Your task to perform on an android device: Search for Italian restaurants on Maps Image 0: 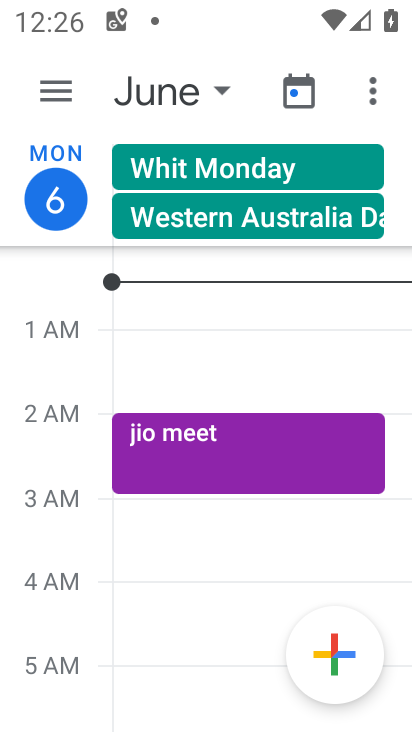
Step 0: press home button
Your task to perform on an android device: Search for Italian restaurants on Maps Image 1: 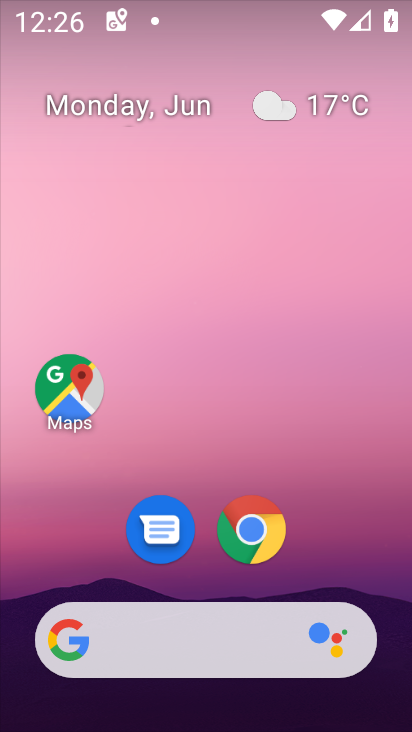
Step 1: drag from (370, 498) to (372, 0)
Your task to perform on an android device: Search for Italian restaurants on Maps Image 2: 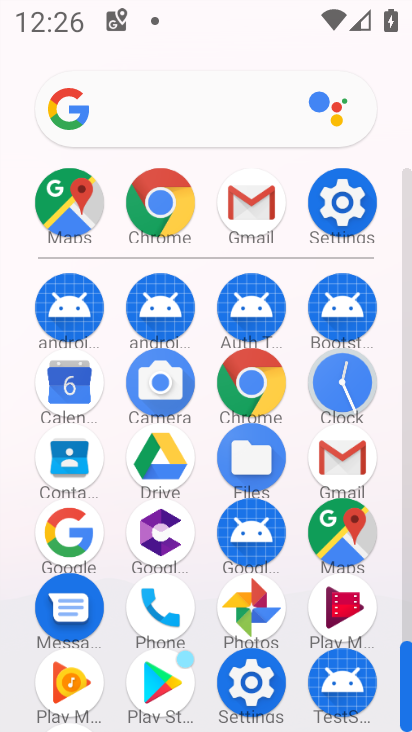
Step 2: click (366, 547)
Your task to perform on an android device: Search for Italian restaurants on Maps Image 3: 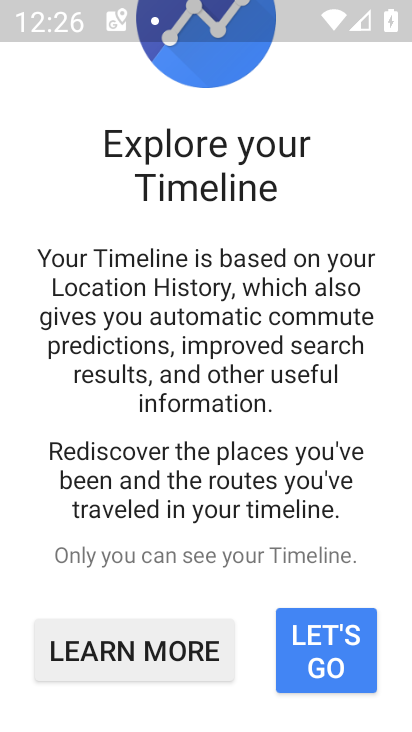
Step 3: drag from (361, 565) to (294, 46)
Your task to perform on an android device: Search for Italian restaurants on Maps Image 4: 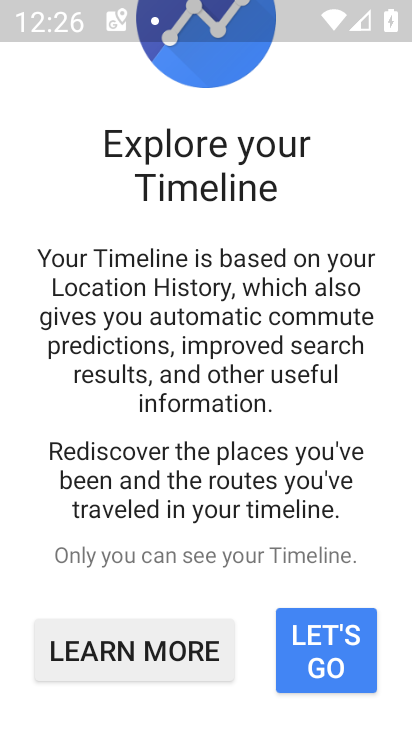
Step 4: press back button
Your task to perform on an android device: Search for Italian restaurants on Maps Image 5: 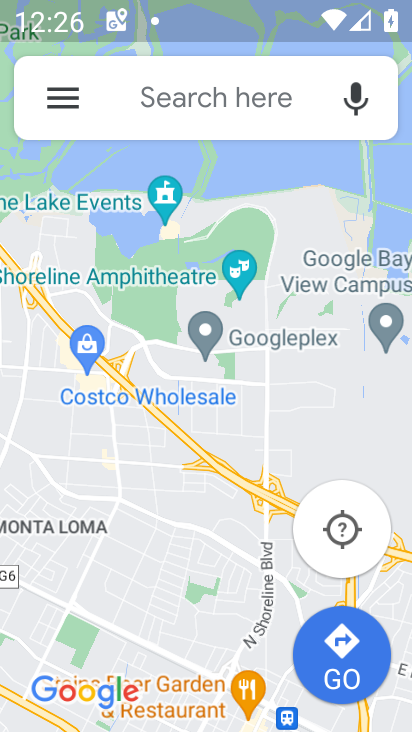
Step 5: click (281, 113)
Your task to perform on an android device: Search for Italian restaurants on Maps Image 6: 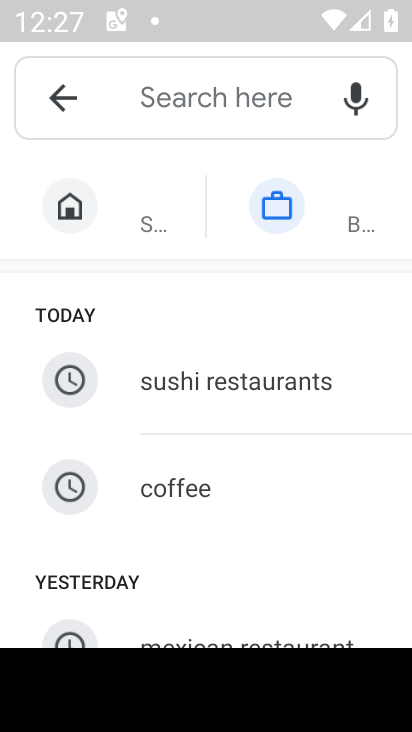
Step 6: type "italian resturents"
Your task to perform on an android device: Search for Italian restaurants on Maps Image 7: 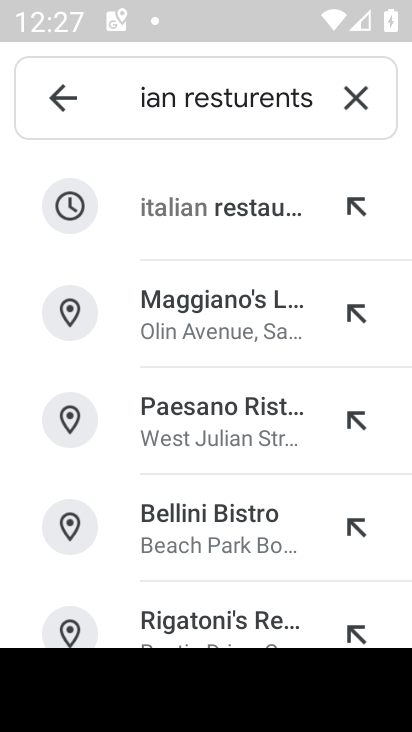
Step 7: click (225, 206)
Your task to perform on an android device: Search for Italian restaurants on Maps Image 8: 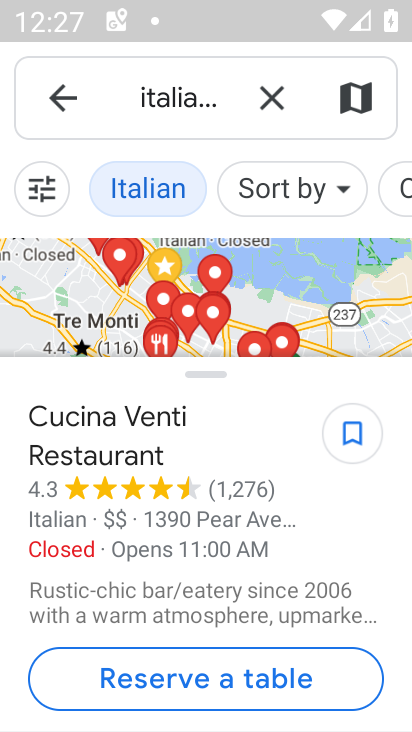
Step 8: task complete